Your task to perform on an android device: Open my contact list Image 0: 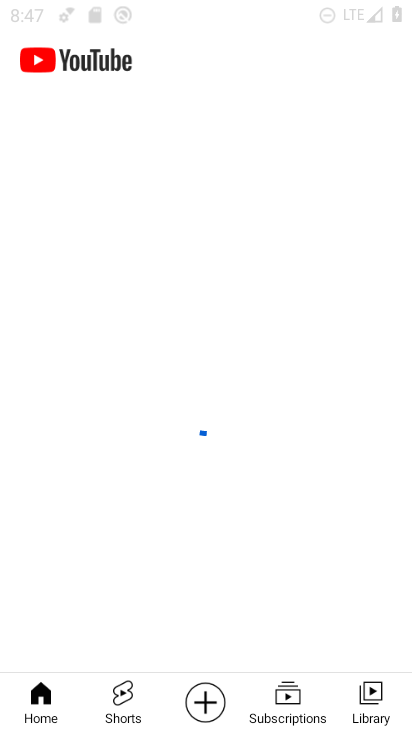
Step 0: drag from (337, 285) to (346, 223)
Your task to perform on an android device: Open my contact list Image 1: 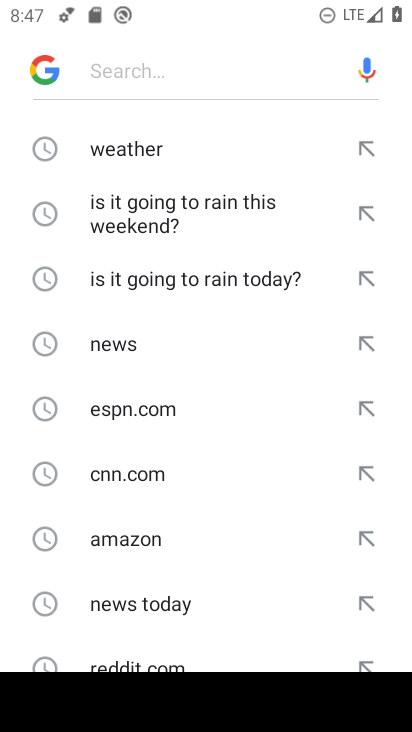
Step 1: press home button
Your task to perform on an android device: Open my contact list Image 2: 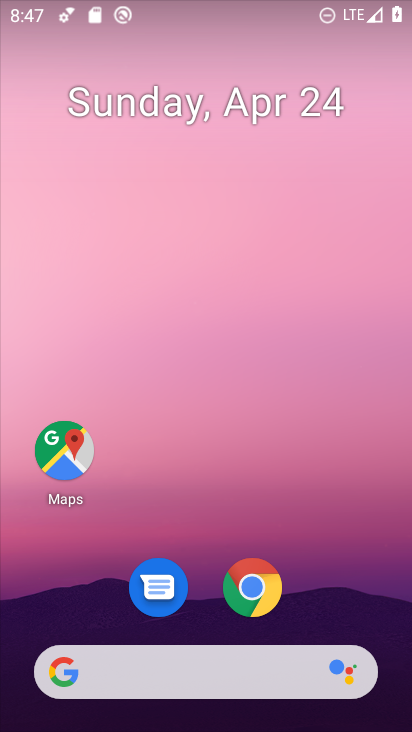
Step 2: drag from (360, 529) to (364, 236)
Your task to perform on an android device: Open my contact list Image 3: 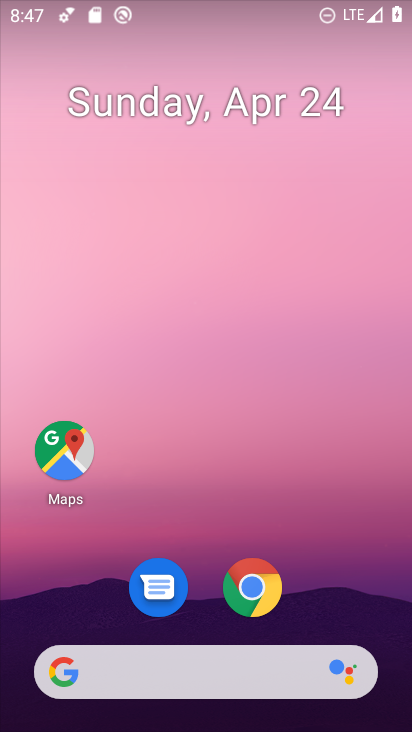
Step 3: drag from (369, 637) to (346, 215)
Your task to perform on an android device: Open my contact list Image 4: 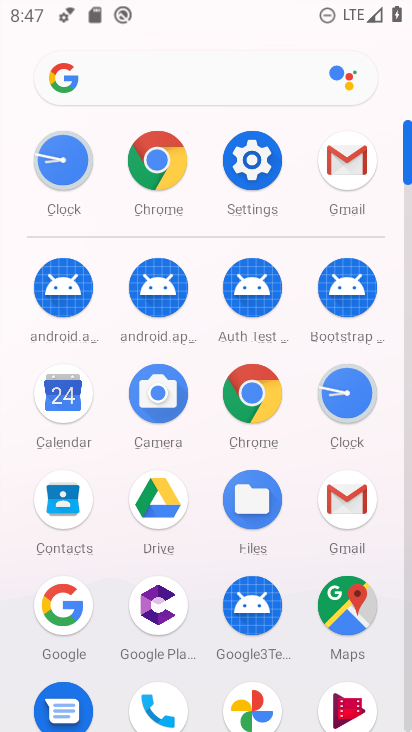
Step 4: click (57, 500)
Your task to perform on an android device: Open my contact list Image 5: 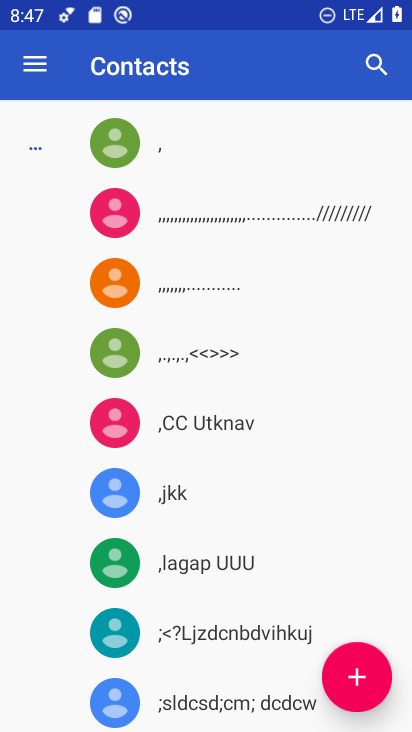
Step 5: task complete